Your task to perform on an android device: set default search engine in the chrome app Image 0: 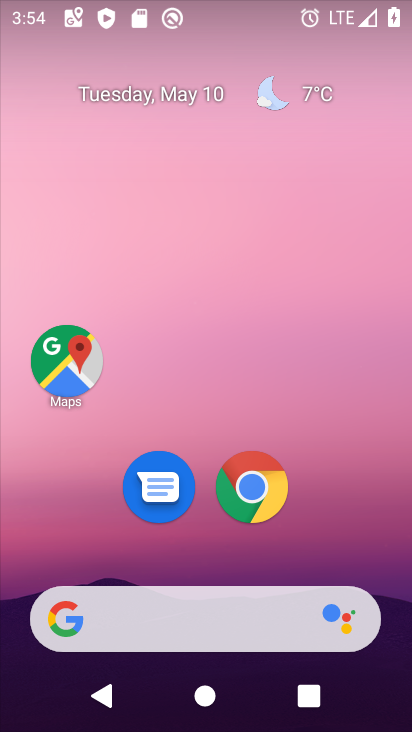
Step 0: click (257, 486)
Your task to perform on an android device: set default search engine in the chrome app Image 1: 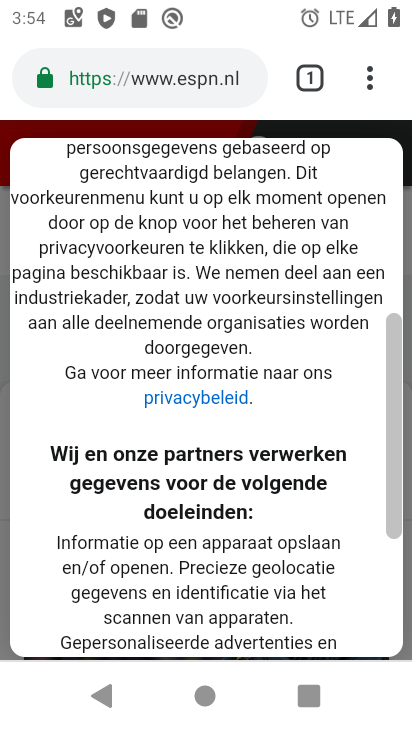
Step 1: drag from (374, 72) to (232, 559)
Your task to perform on an android device: set default search engine in the chrome app Image 2: 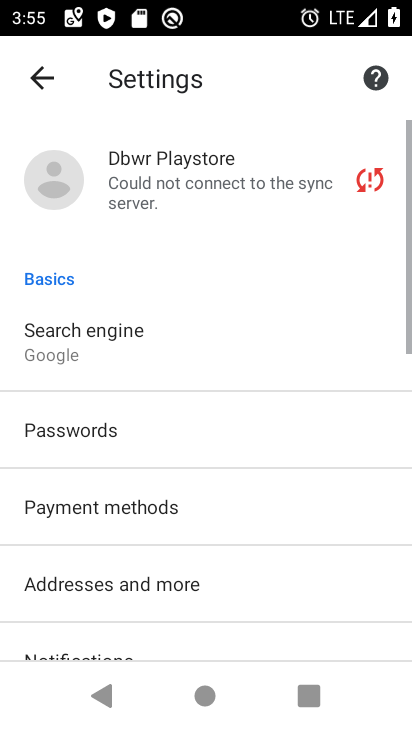
Step 2: click (135, 331)
Your task to perform on an android device: set default search engine in the chrome app Image 3: 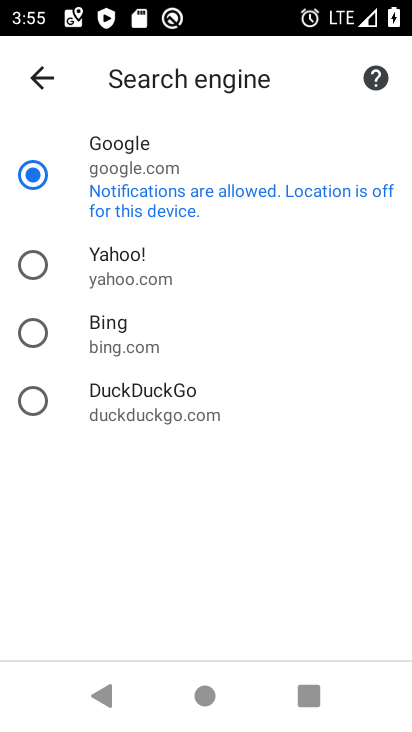
Step 3: task complete